Your task to perform on an android device: Open calendar and show me the third week of next month Image 0: 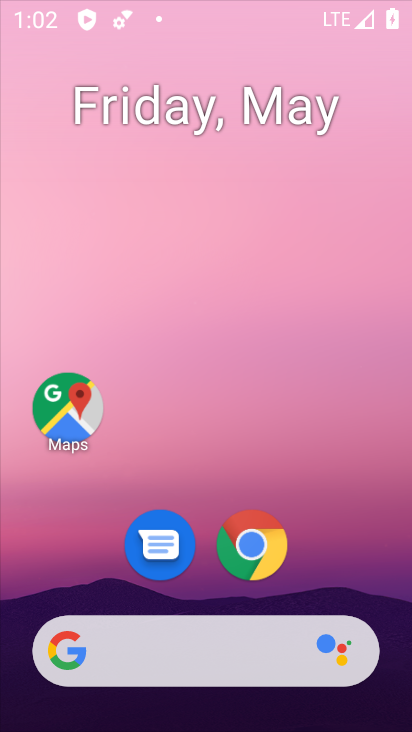
Step 0: press home button
Your task to perform on an android device: Open calendar and show me the third week of next month Image 1: 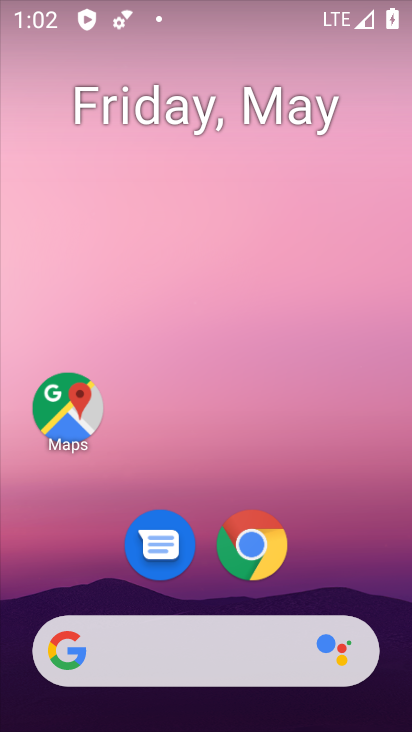
Step 1: drag from (349, 507) to (178, 23)
Your task to perform on an android device: Open calendar and show me the third week of next month Image 2: 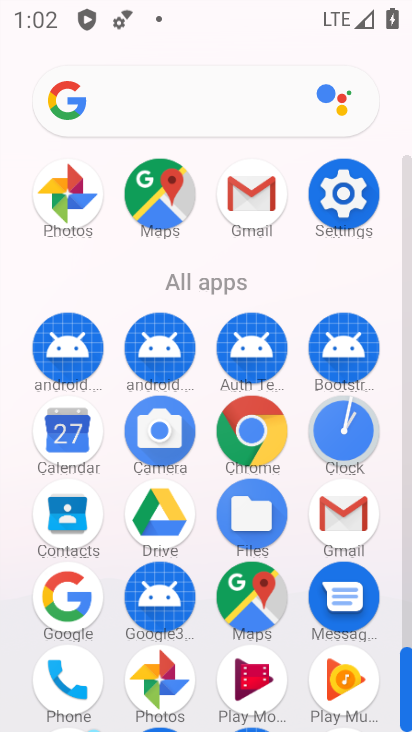
Step 2: click (74, 436)
Your task to perform on an android device: Open calendar and show me the third week of next month Image 3: 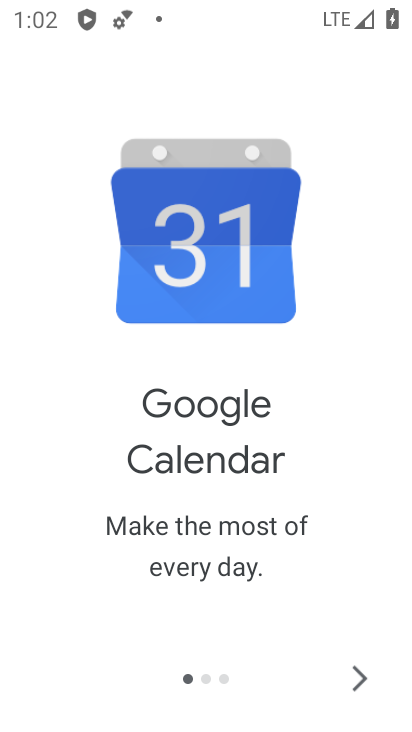
Step 3: click (361, 682)
Your task to perform on an android device: Open calendar and show me the third week of next month Image 4: 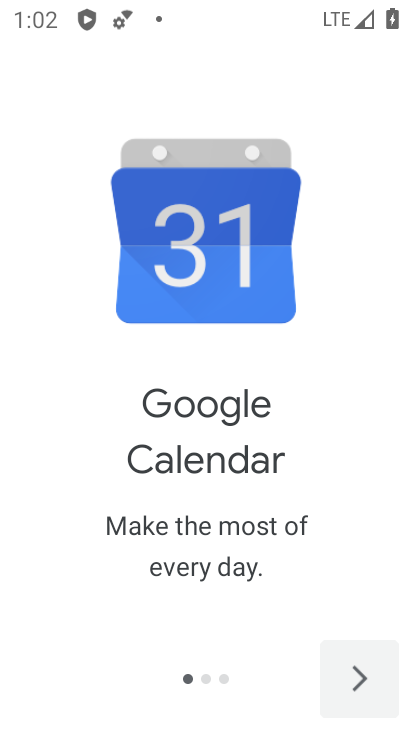
Step 4: click (359, 682)
Your task to perform on an android device: Open calendar and show me the third week of next month Image 5: 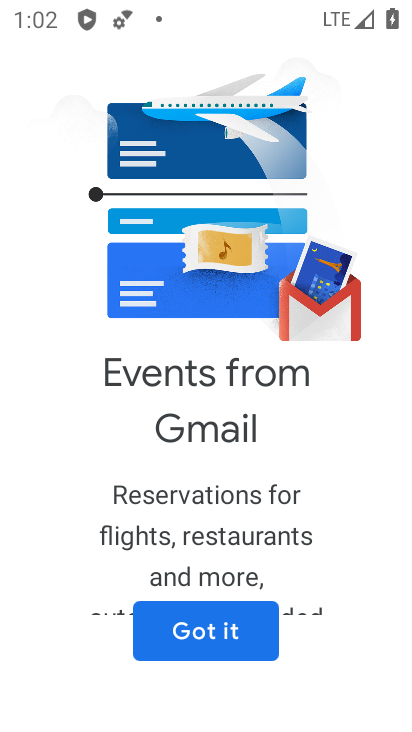
Step 5: click (215, 646)
Your task to perform on an android device: Open calendar and show me the third week of next month Image 6: 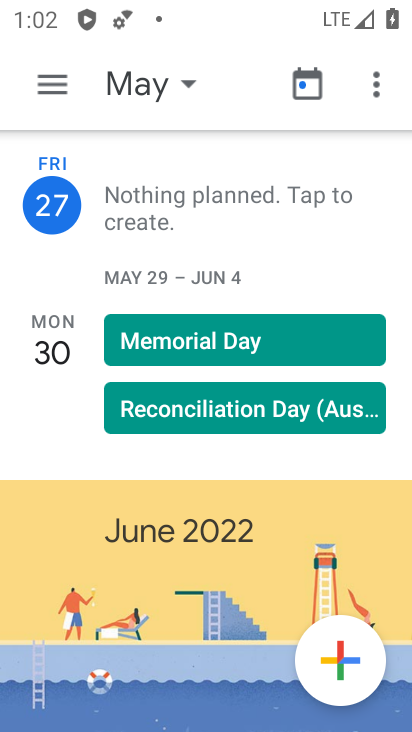
Step 6: click (44, 79)
Your task to perform on an android device: Open calendar and show me the third week of next month Image 7: 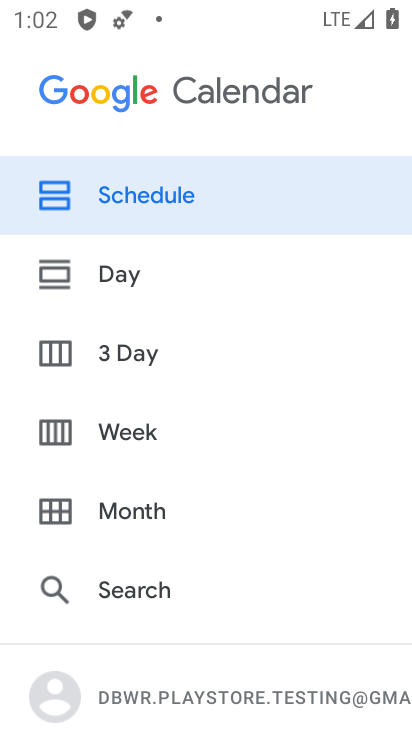
Step 7: click (153, 428)
Your task to perform on an android device: Open calendar and show me the third week of next month Image 8: 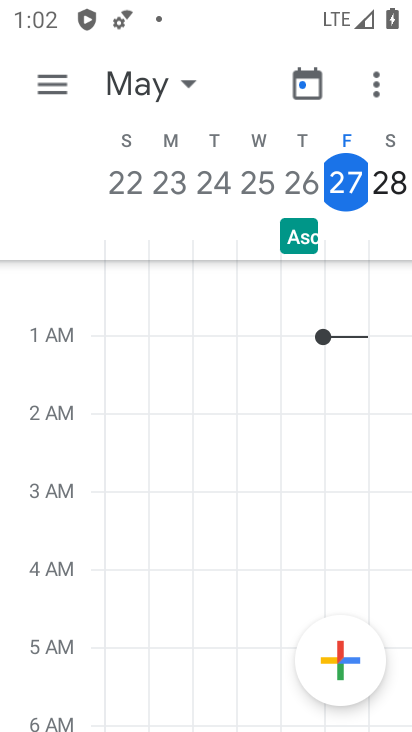
Step 8: click (188, 84)
Your task to perform on an android device: Open calendar and show me the third week of next month Image 9: 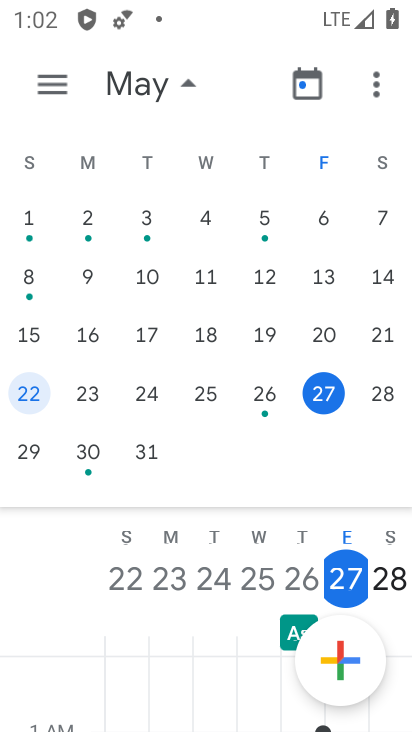
Step 9: drag from (362, 278) to (2, 356)
Your task to perform on an android device: Open calendar and show me the third week of next month Image 10: 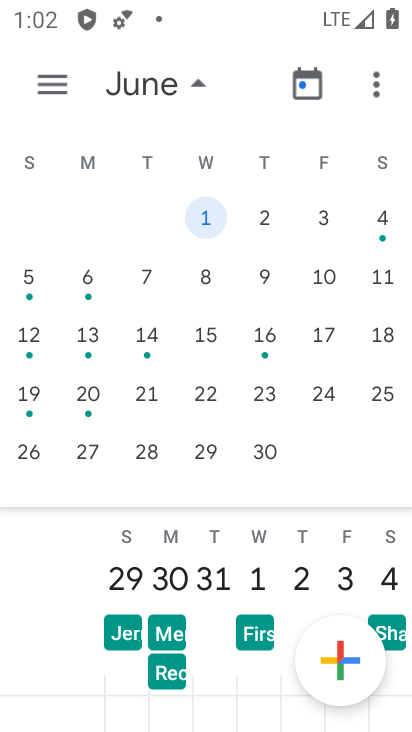
Step 10: click (37, 335)
Your task to perform on an android device: Open calendar and show me the third week of next month Image 11: 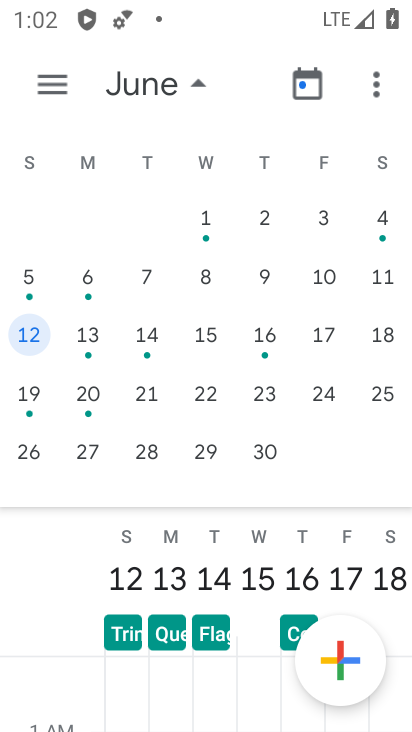
Step 11: task complete